Your task to perform on an android device: turn on airplane mode Image 0: 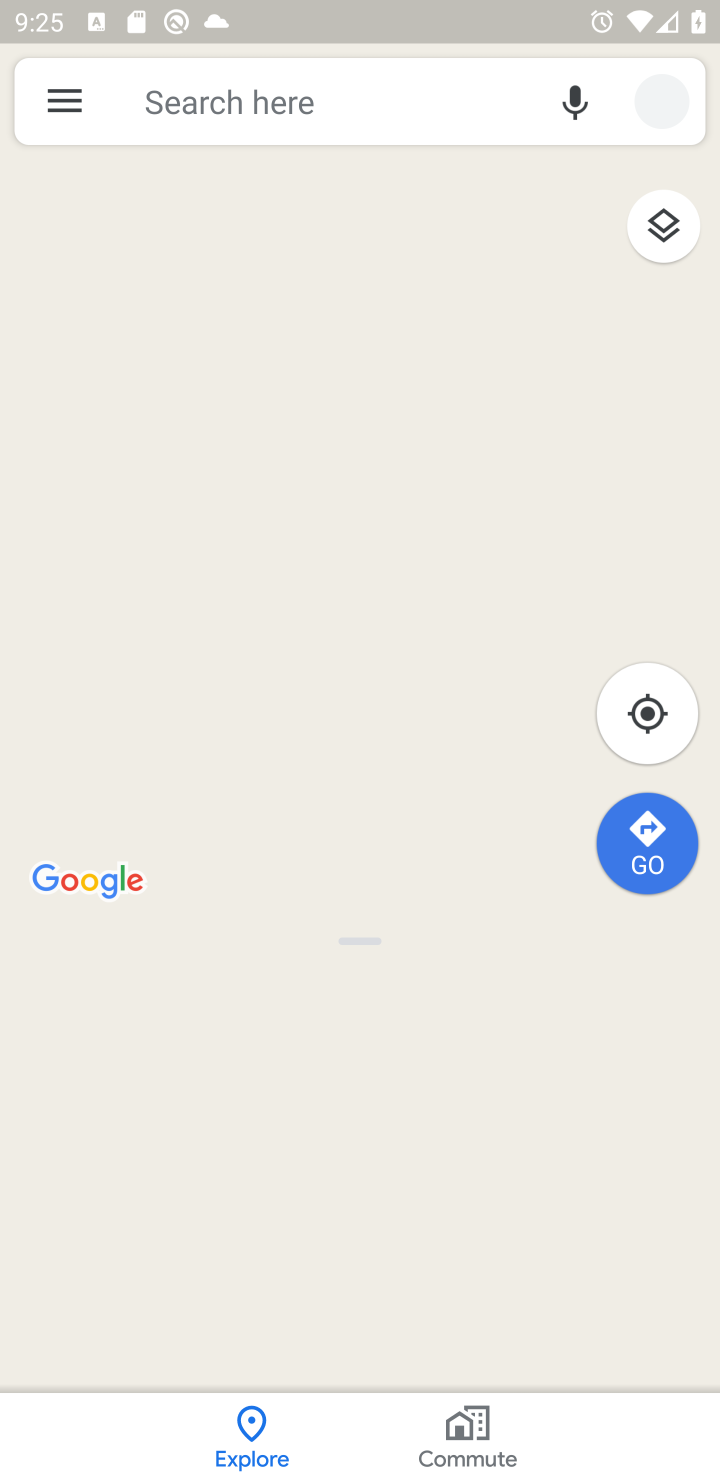
Step 0: click (309, 130)
Your task to perform on an android device: turn on airplane mode Image 1: 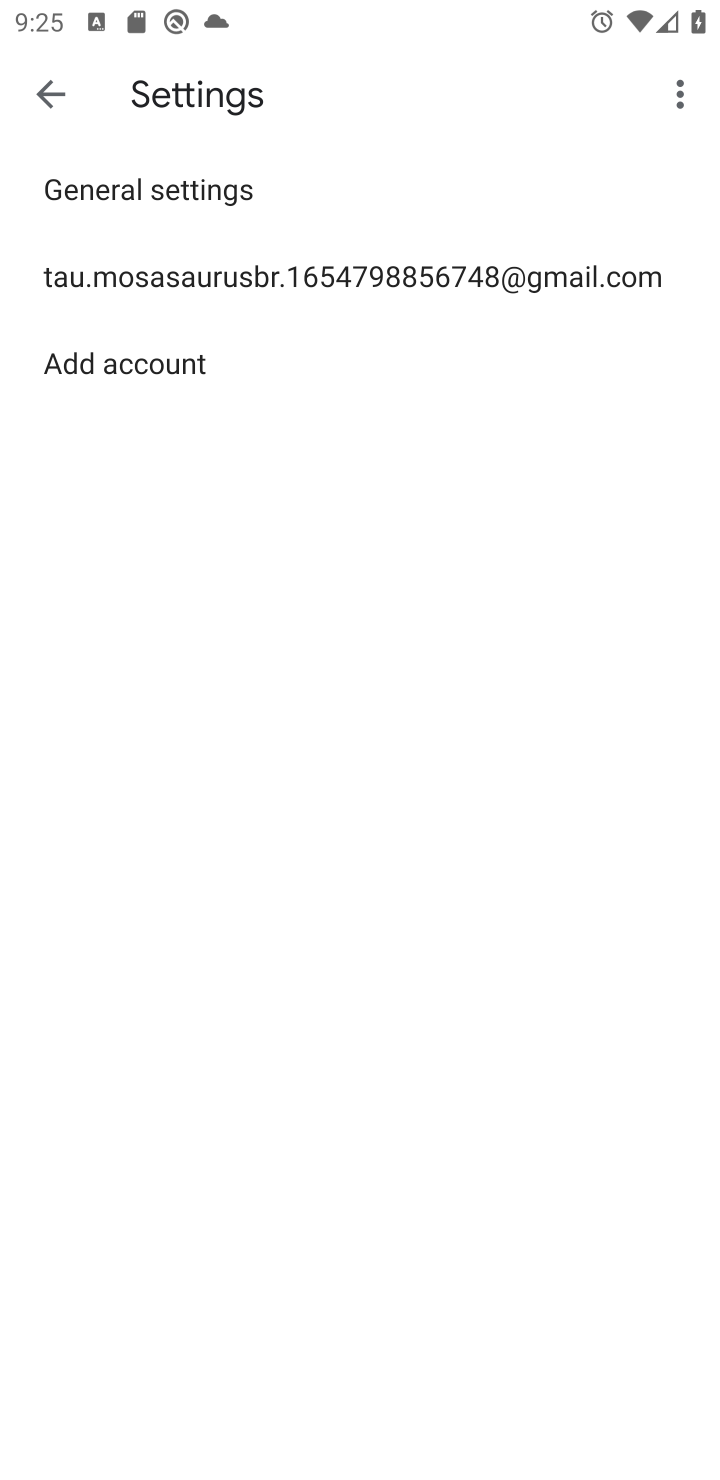
Step 1: drag from (472, 25) to (499, 842)
Your task to perform on an android device: turn on airplane mode Image 2: 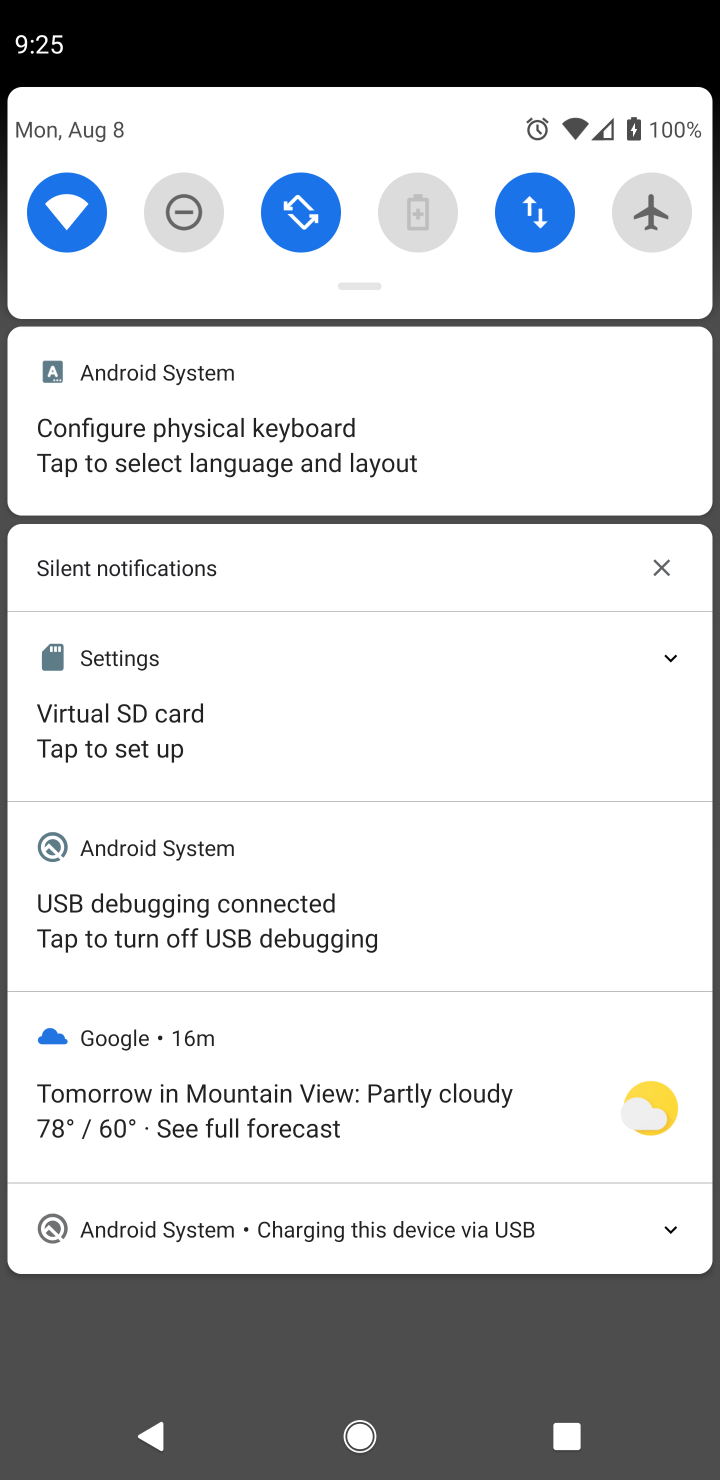
Step 2: click (664, 189)
Your task to perform on an android device: turn on airplane mode Image 3: 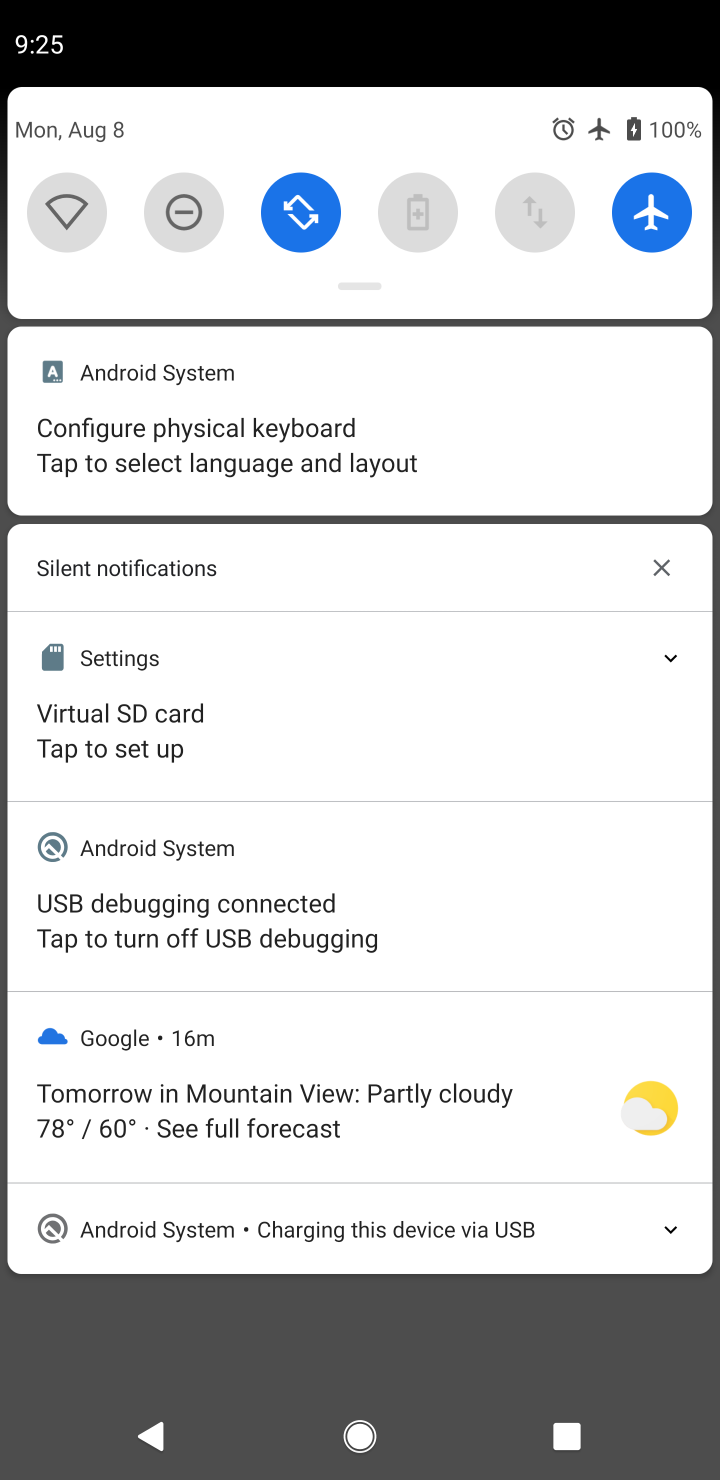
Step 3: task complete